Your task to perform on an android device: check storage Image 0: 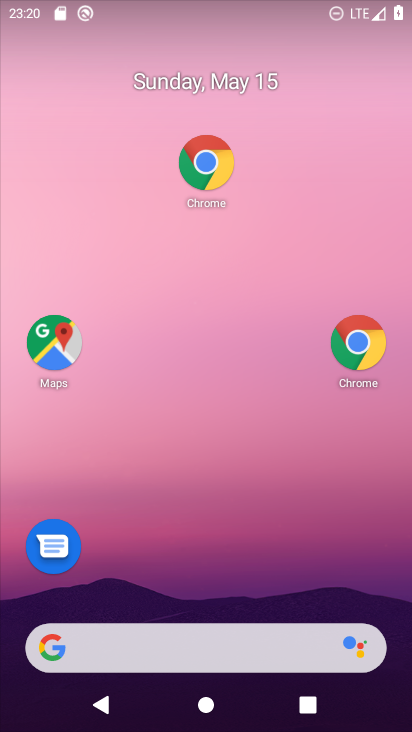
Step 0: click (257, 213)
Your task to perform on an android device: check storage Image 1: 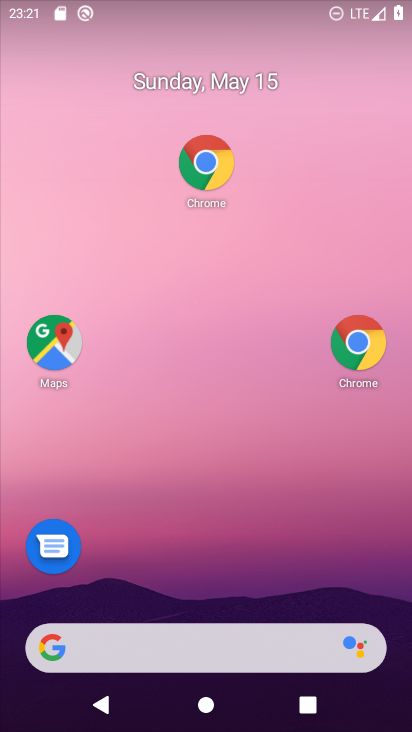
Step 1: drag from (215, 518) to (245, 299)
Your task to perform on an android device: check storage Image 2: 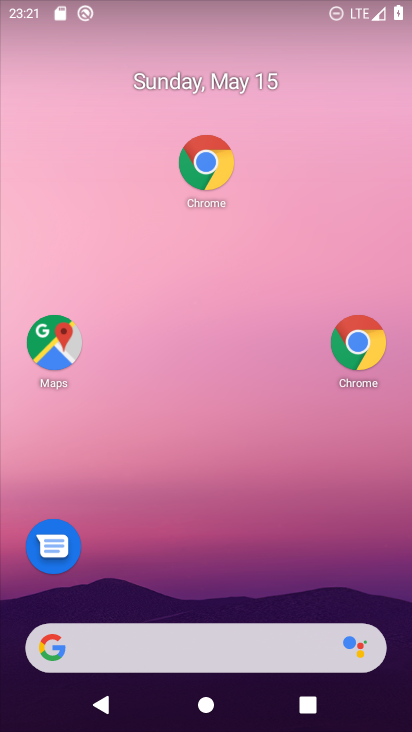
Step 2: drag from (239, 578) to (282, 316)
Your task to perform on an android device: check storage Image 3: 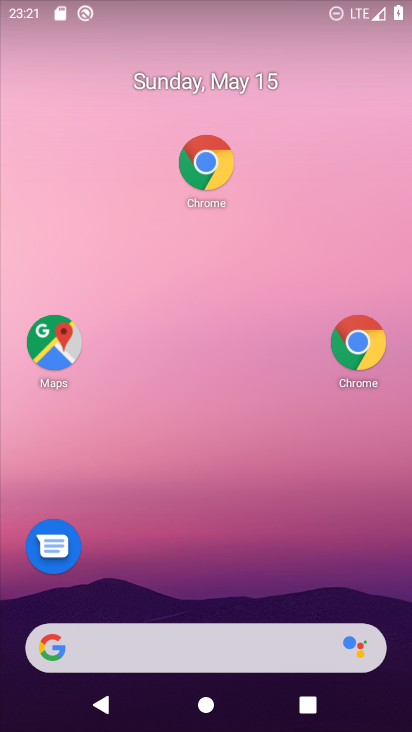
Step 3: drag from (224, 564) to (307, 284)
Your task to perform on an android device: check storage Image 4: 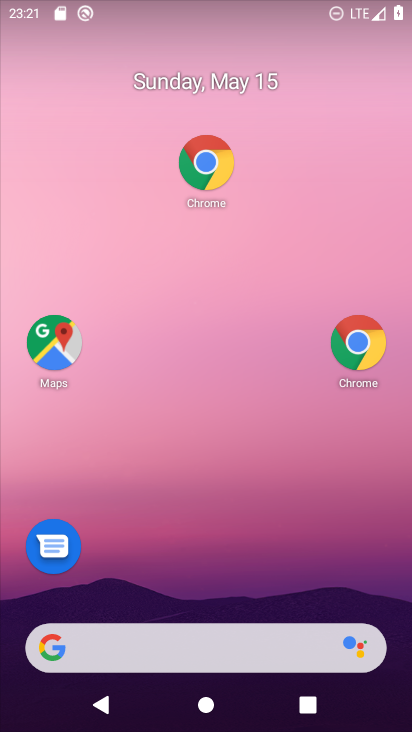
Step 4: drag from (218, 538) to (271, 267)
Your task to perform on an android device: check storage Image 5: 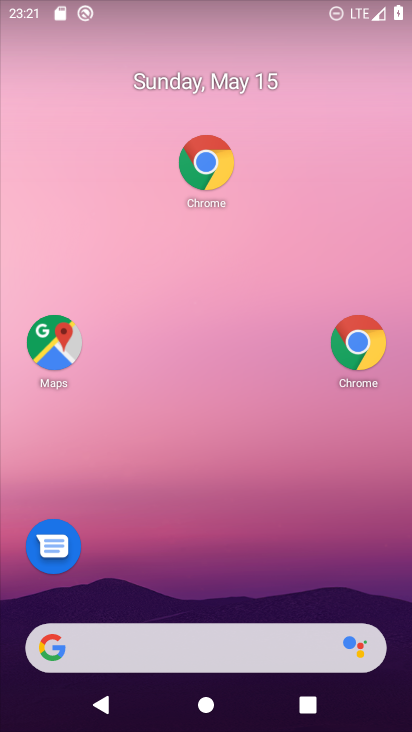
Step 5: drag from (197, 600) to (251, 272)
Your task to perform on an android device: check storage Image 6: 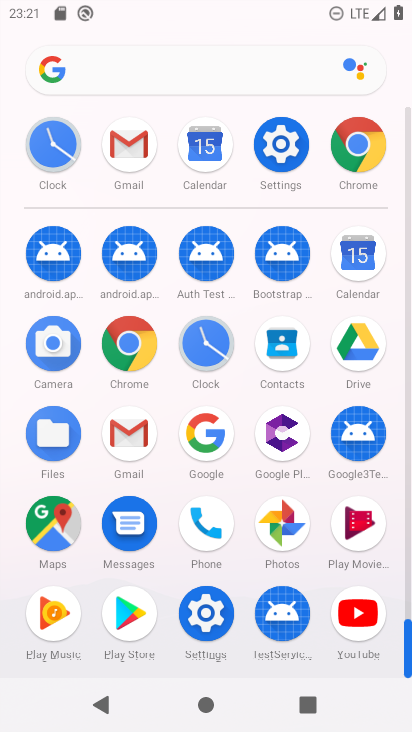
Step 6: click (282, 113)
Your task to perform on an android device: check storage Image 7: 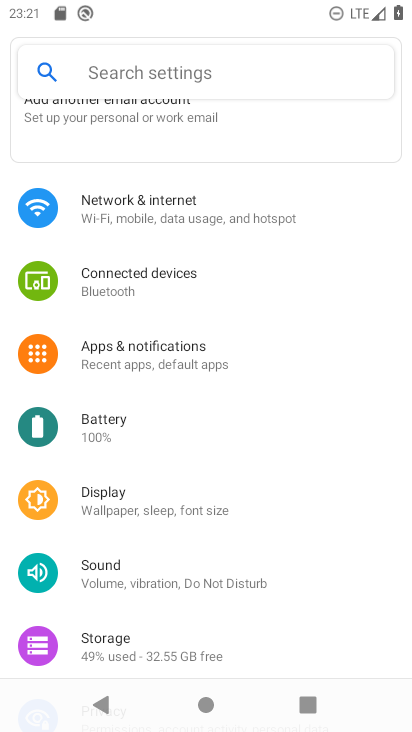
Step 7: click (84, 651)
Your task to perform on an android device: check storage Image 8: 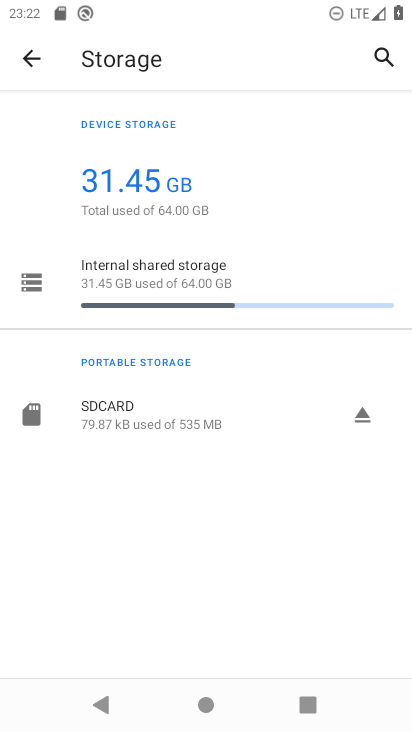
Step 8: task complete